Your task to perform on an android device: Go to settings Image 0: 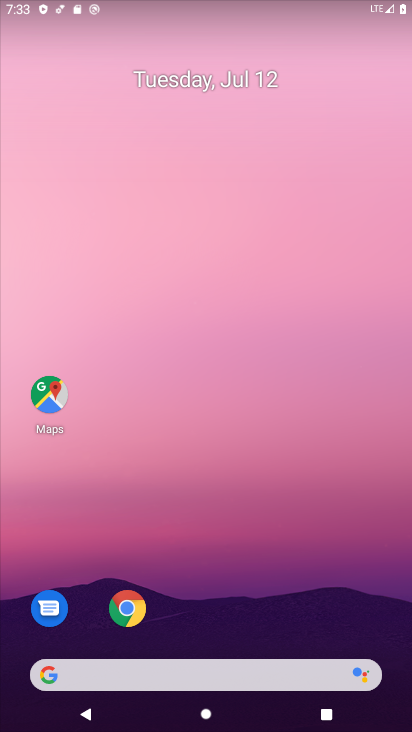
Step 0: drag from (250, 676) to (351, 254)
Your task to perform on an android device: Go to settings Image 1: 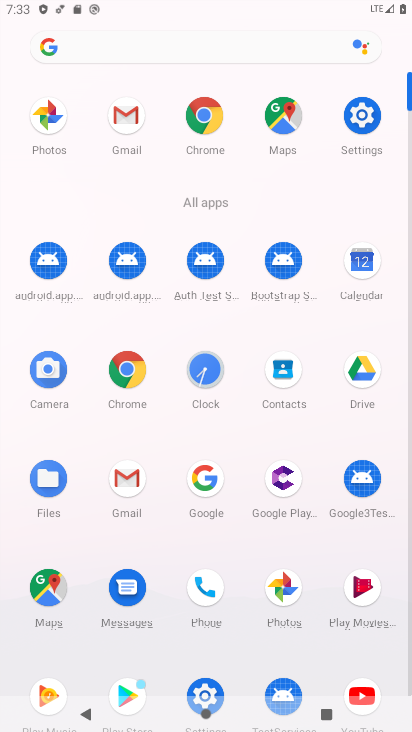
Step 1: click (358, 126)
Your task to perform on an android device: Go to settings Image 2: 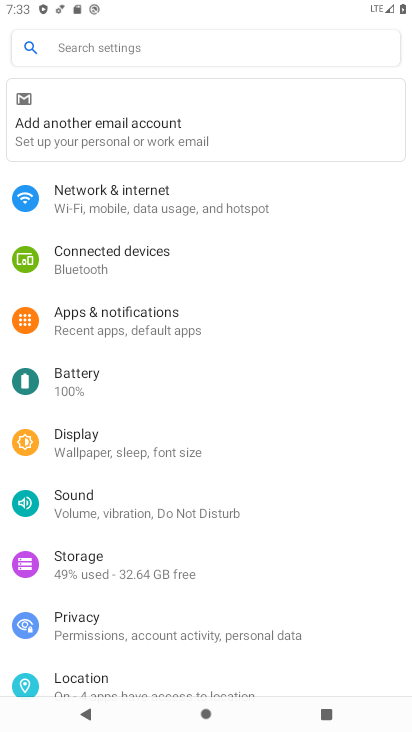
Step 2: task complete